Your task to perform on an android device: Set the phone to "Do not disturb". Image 0: 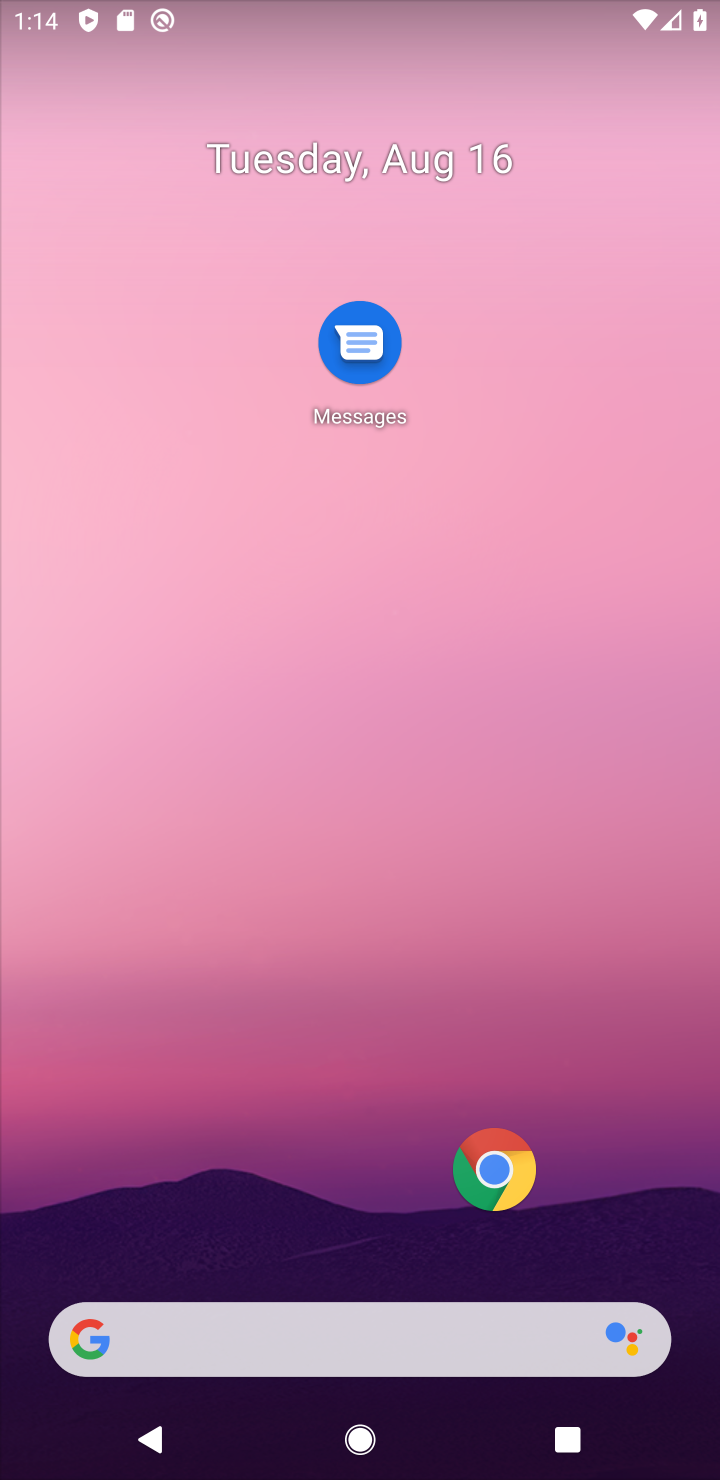
Step 0: press home button
Your task to perform on an android device: Set the phone to "Do not disturb". Image 1: 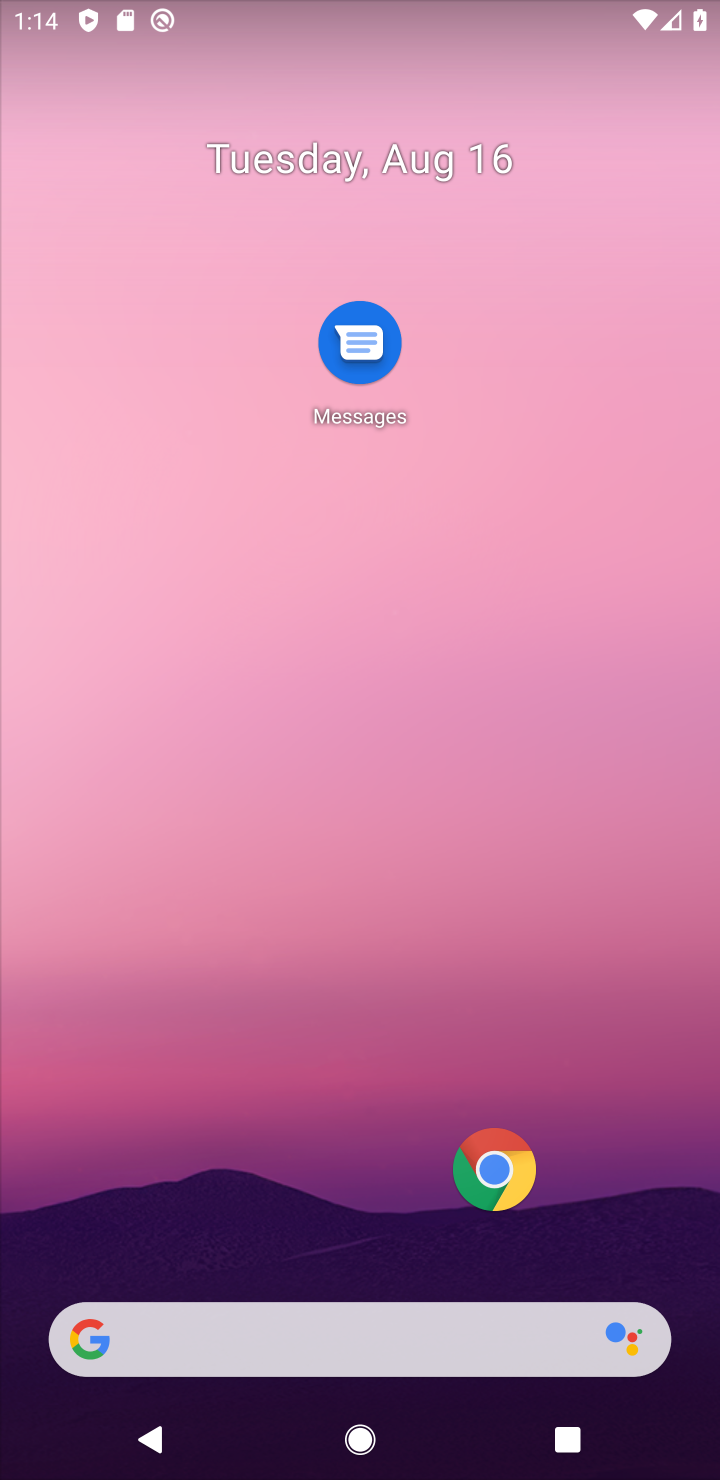
Step 1: task complete